Your task to perform on an android device: Open the web browser Image 0: 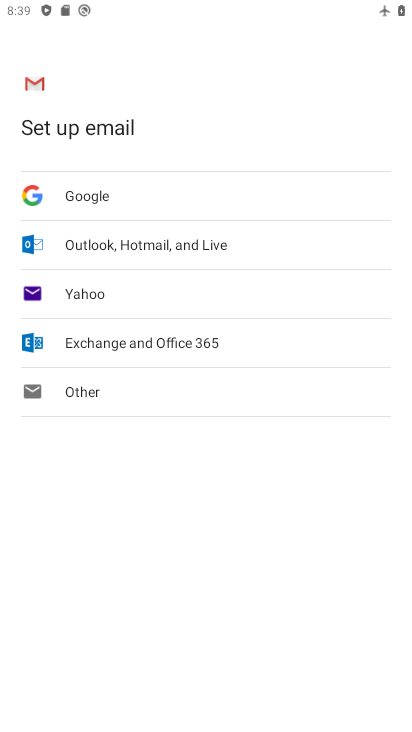
Step 0: press home button
Your task to perform on an android device: Open the web browser Image 1: 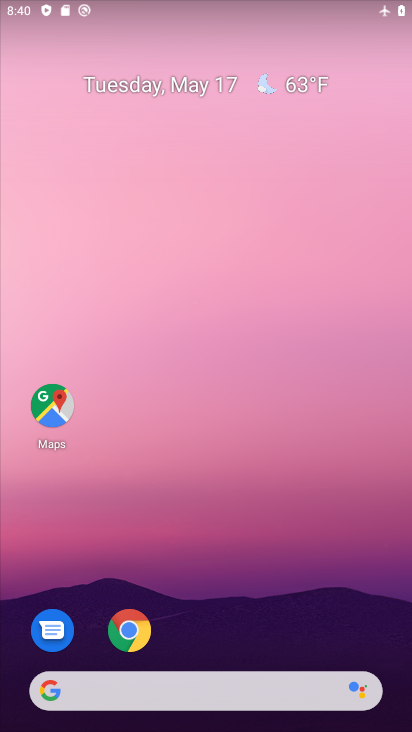
Step 1: drag from (226, 649) to (293, 162)
Your task to perform on an android device: Open the web browser Image 2: 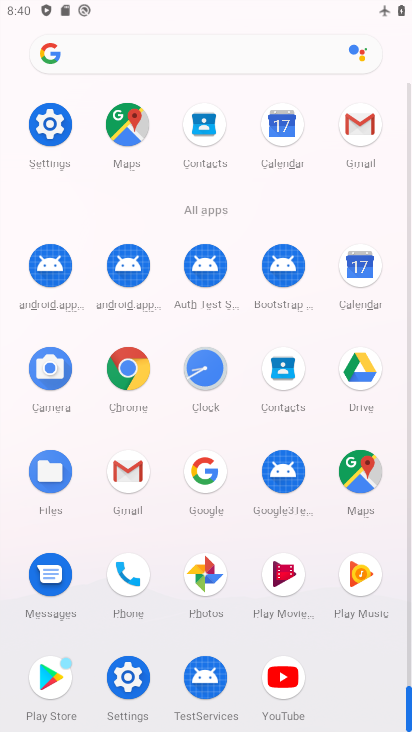
Step 2: click (205, 472)
Your task to perform on an android device: Open the web browser Image 3: 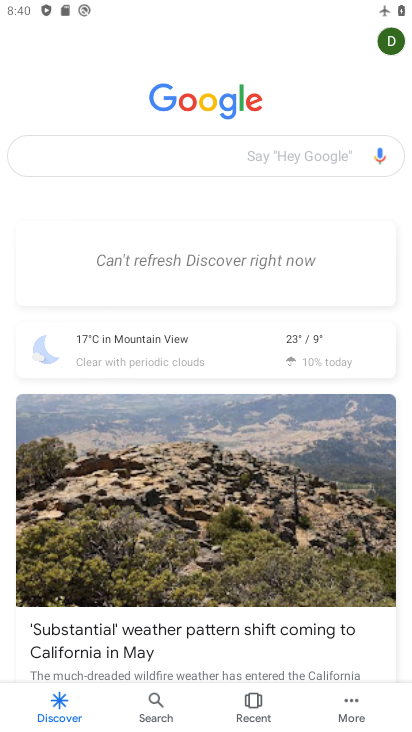
Step 3: task complete